Your task to perform on an android device: turn pop-ups off in chrome Image 0: 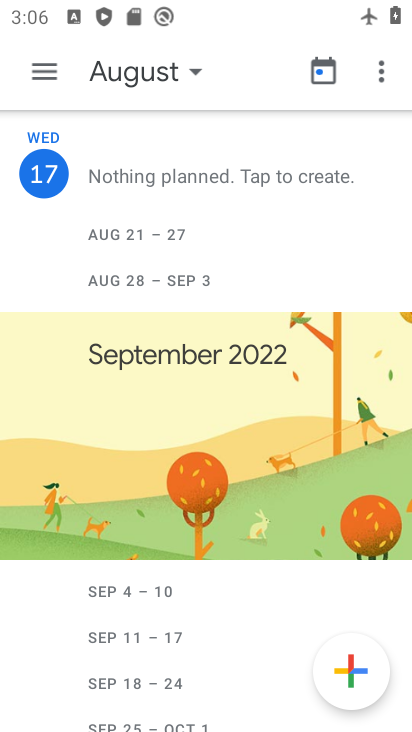
Step 0: press home button
Your task to perform on an android device: turn pop-ups off in chrome Image 1: 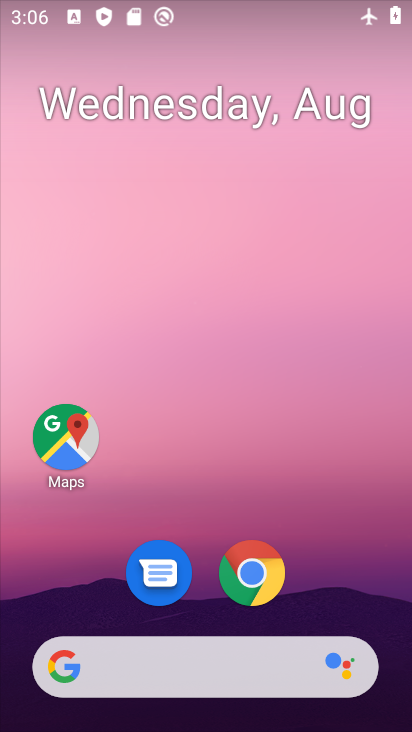
Step 1: click (261, 572)
Your task to perform on an android device: turn pop-ups off in chrome Image 2: 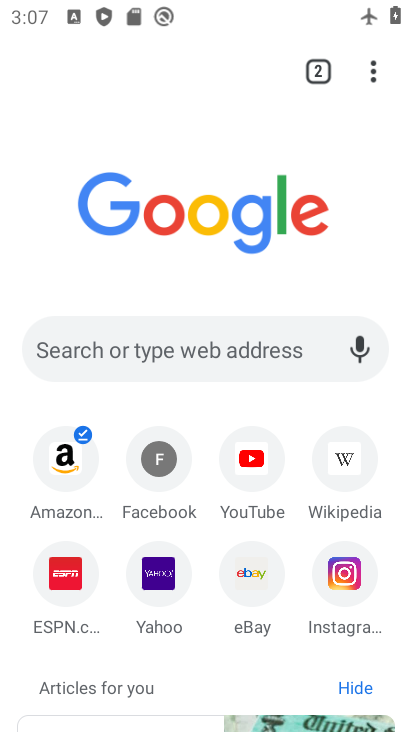
Step 2: click (373, 85)
Your task to perform on an android device: turn pop-ups off in chrome Image 3: 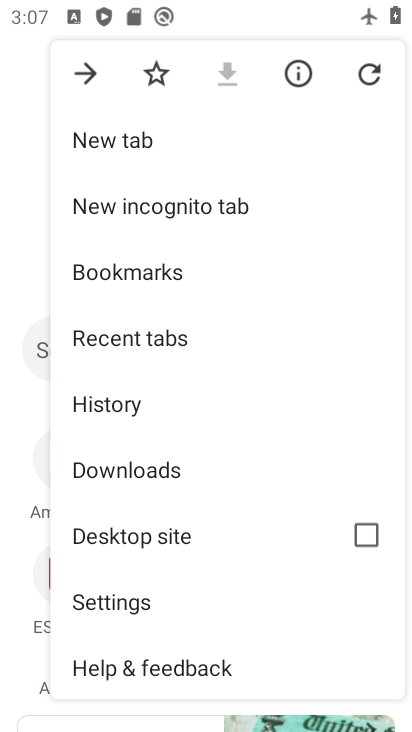
Step 3: click (149, 593)
Your task to perform on an android device: turn pop-ups off in chrome Image 4: 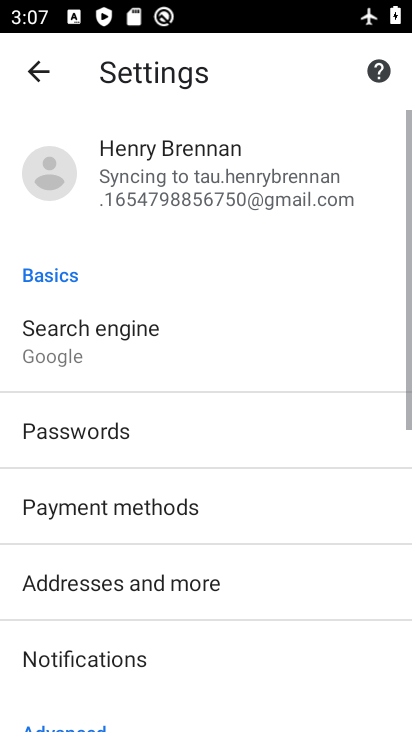
Step 4: drag from (239, 505) to (240, 11)
Your task to perform on an android device: turn pop-ups off in chrome Image 5: 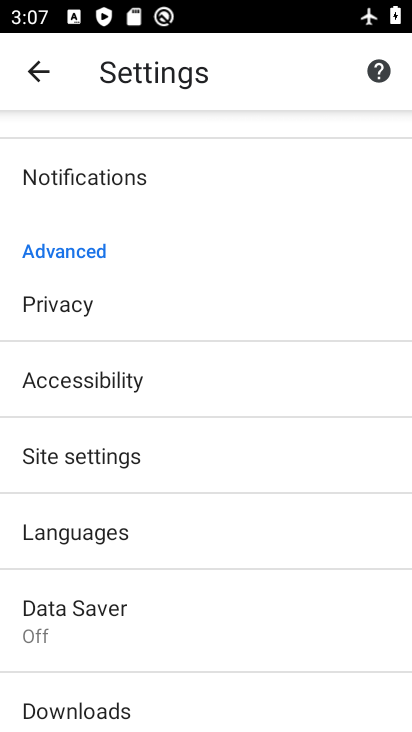
Step 5: click (73, 459)
Your task to perform on an android device: turn pop-ups off in chrome Image 6: 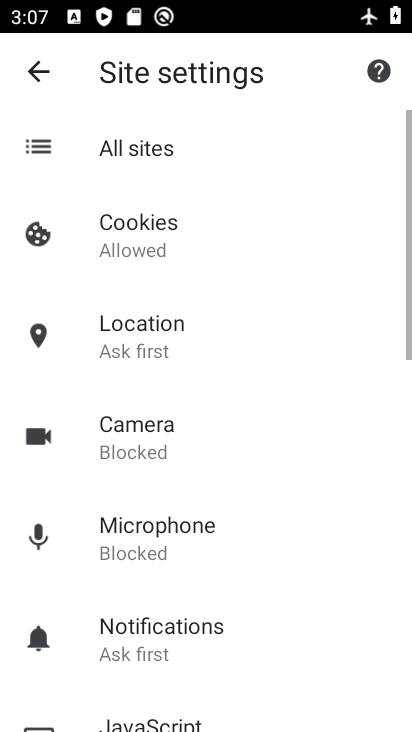
Step 6: drag from (274, 542) to (280, 295)
Your task to perform on an android device: turn pop-ups off in chrome Image 7: 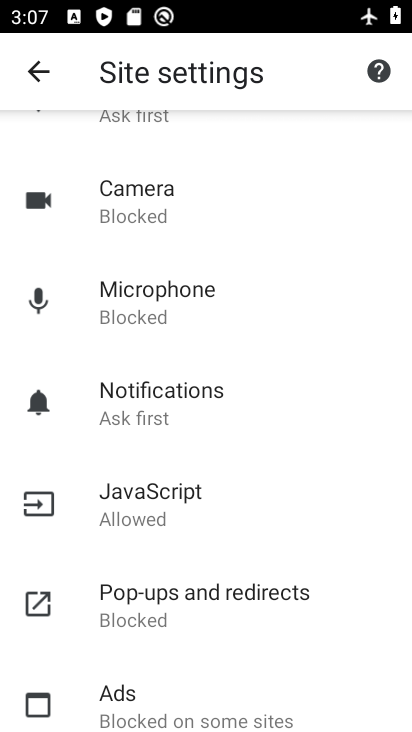
Step 7: click (243, 593)
Your task to perform on an android device: turn pop-ups off in chrome Image 8: 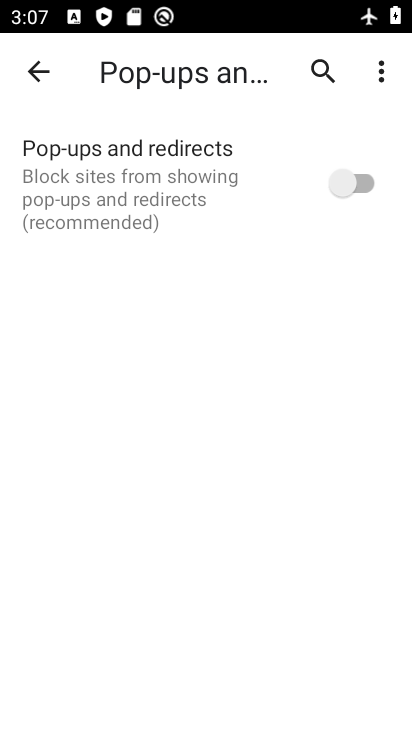
Step 8: task complete